Your task to perform on an android device: Open the web browser Image 0: 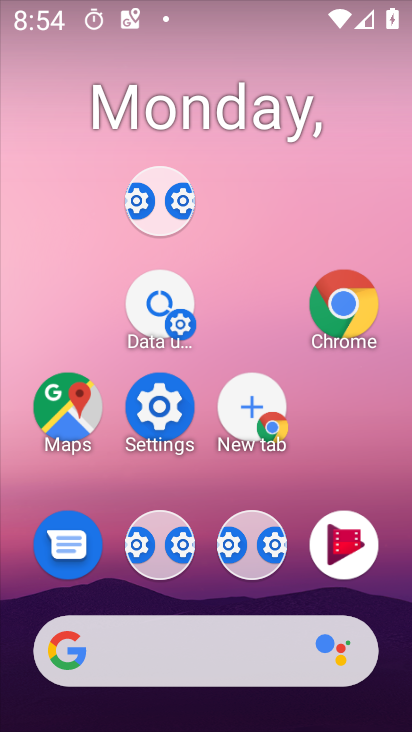
Step 0: click (336, 309)
Your task to perform on an android device: Open the web browser Image 1: 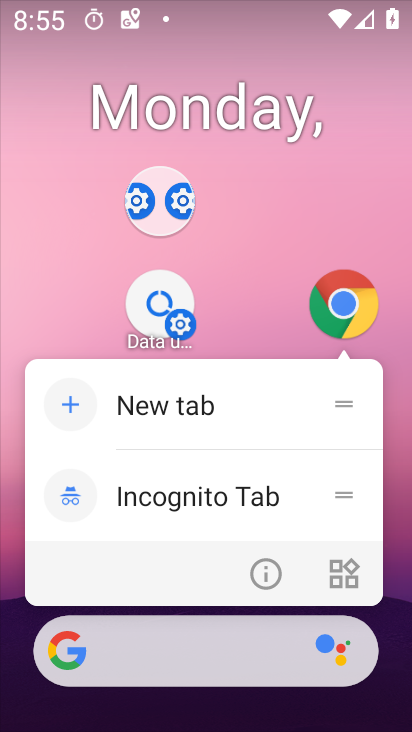
Step 1: click (130, 414)
Your task to perform on an android device: Open the web browser Image 2: 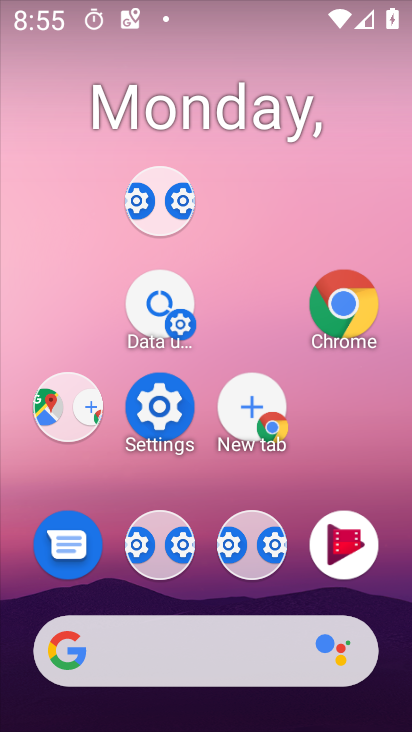
Step 2: click (161, 409)
Your task to perform on an android device: Open the web browser Image 3: 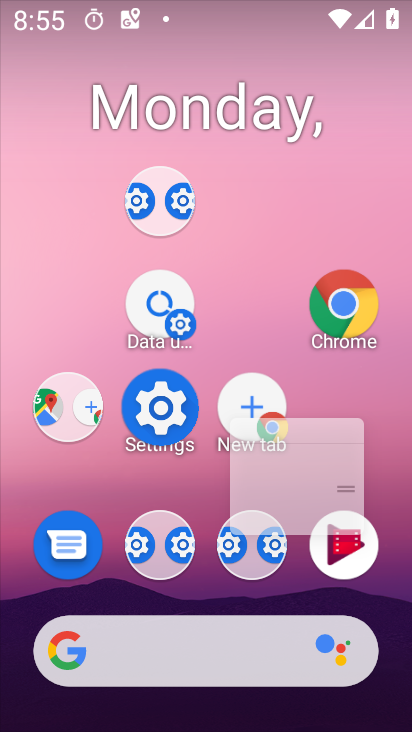
Step 3: click (161, 410)
Your task to perform on an android device: Open the web browser Image 4: 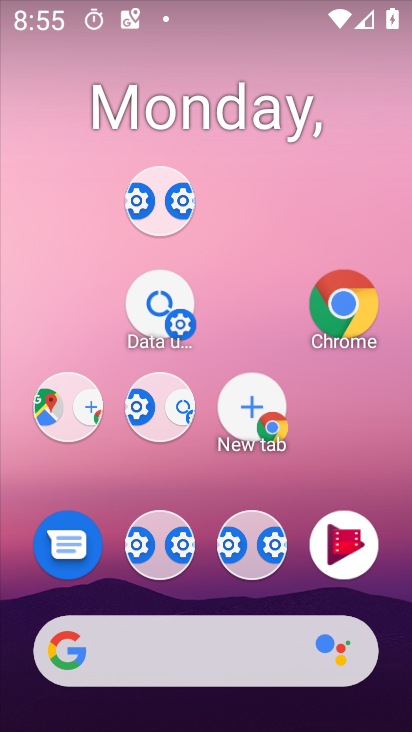
Step 4: click (337, 309)
Your task to perform on an android device: Open the web browser Image 5: 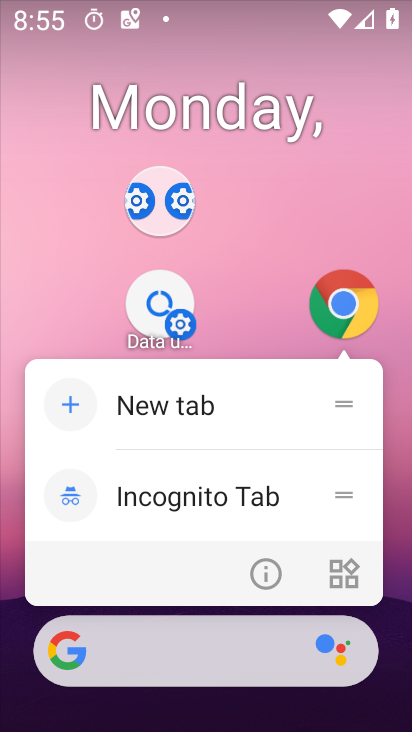
Step 5: click (76, 402)
Your task to perform on an android device: Open the web browser Image 6: 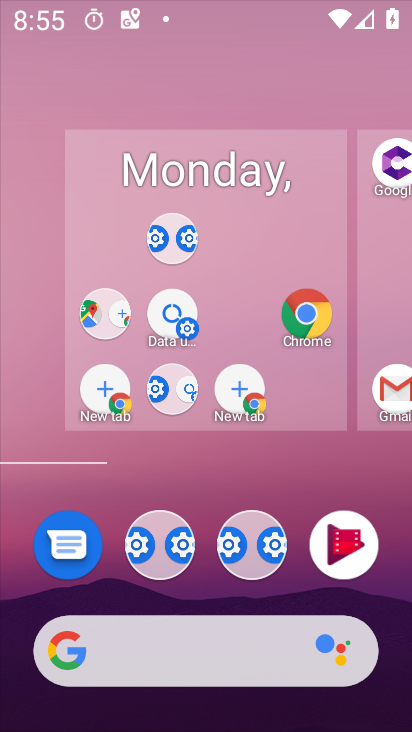
Step 6: click (76, 402)
Your task to perform on an android device: Open the web browser Image 7: 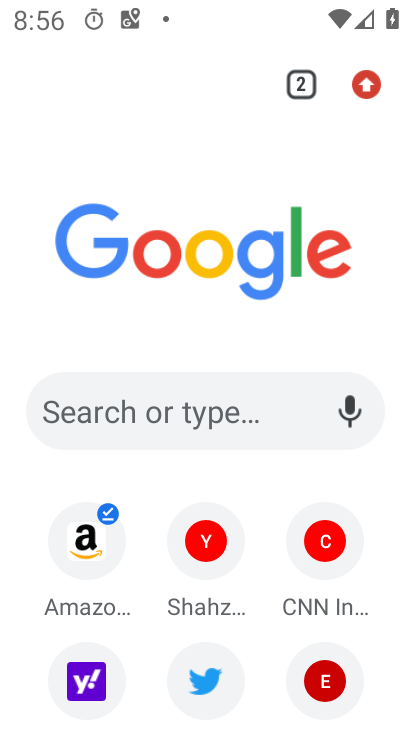
Step 7: click (105, 412)
Your task to perform on an android device: Open the web browser Image 8: 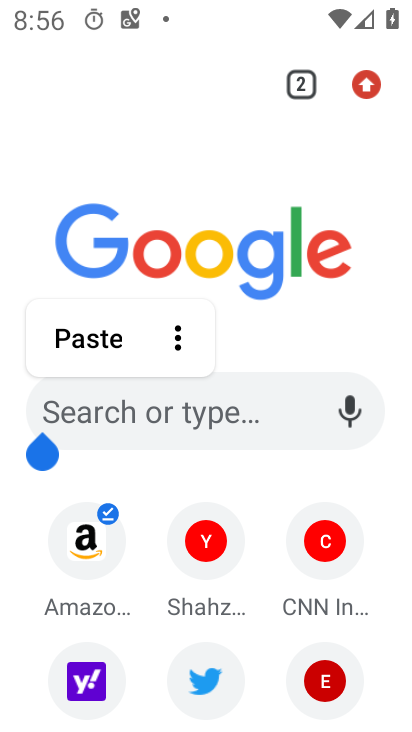
Step 8: click (98, 417)
Your task to perform on an android device: Open the web browser Image 9: 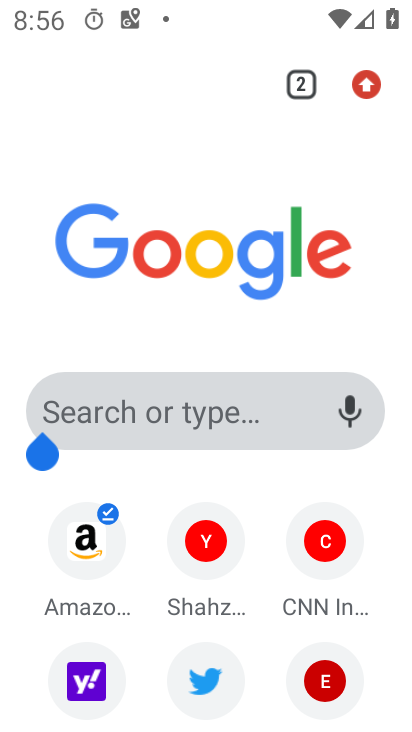
Step 9: click (101, 413)
Your task to perform on an android device: Open the web browser Image 10: 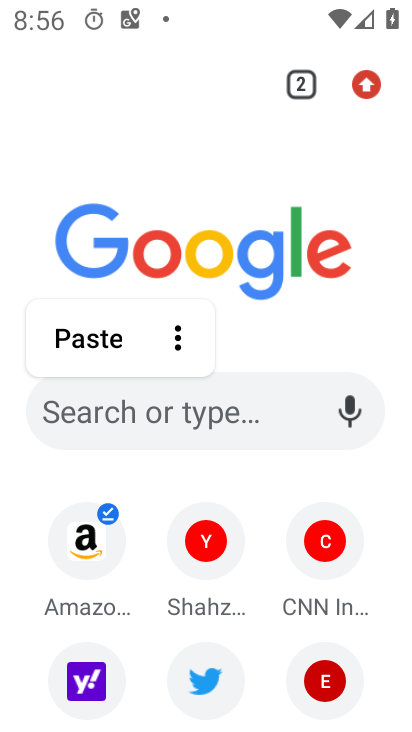
Step 10: press home button
Your task to perform on an android device: Open the web browser Image 11: 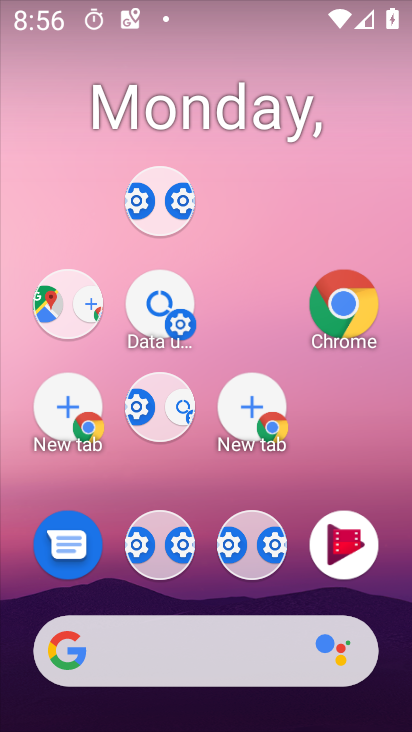
Step 11: click (344, 313)
Your task to perform on an android device: Open the web browser Image 12: 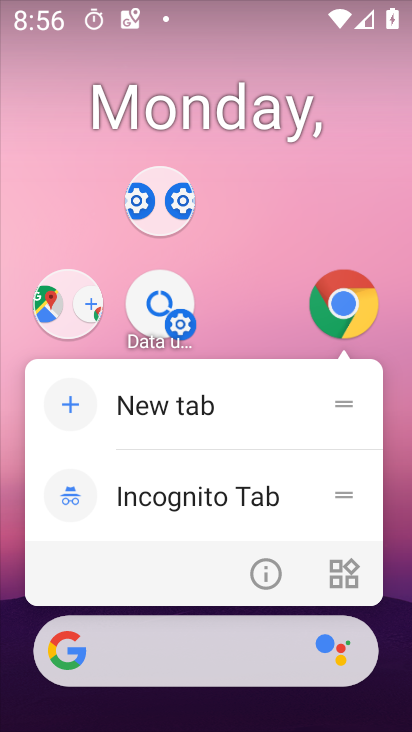
Step 12: click (140, 411)
Your task to perform on an android device: Open the web browser Image 13: 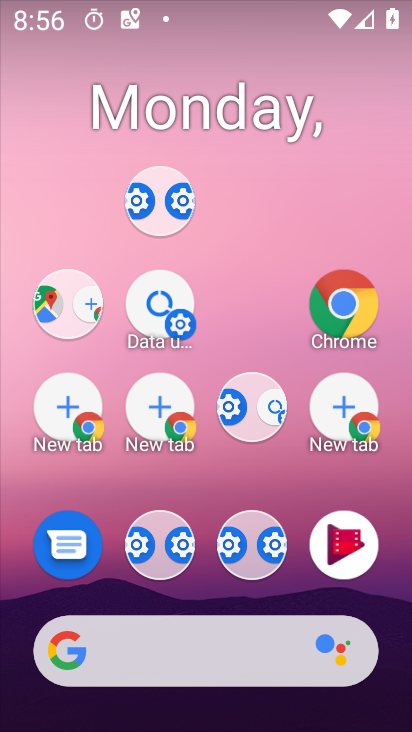
Step 13: click (340, 312)
Your task to perform on an android device: Open the web browser Image 14: 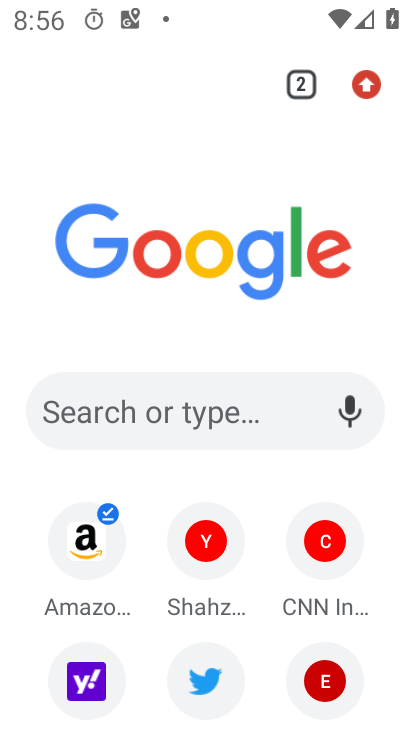
Step 14: task complete